Your task to perform on an android device: empty trash in the gmail app Image 0: 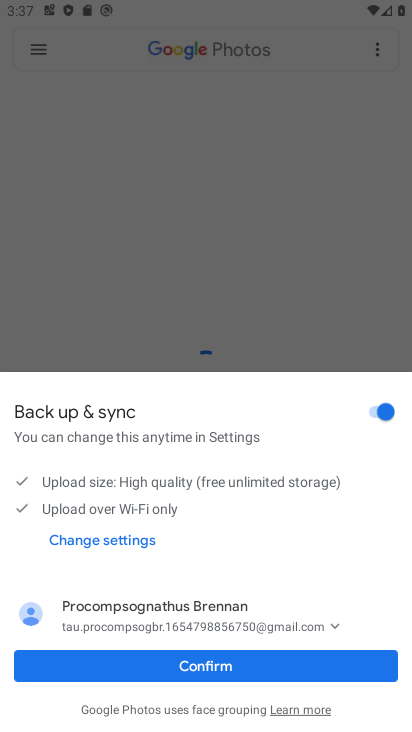
Step 0: press home button
Your task to perform on an android device: empty trash in the gmail app Image 1: 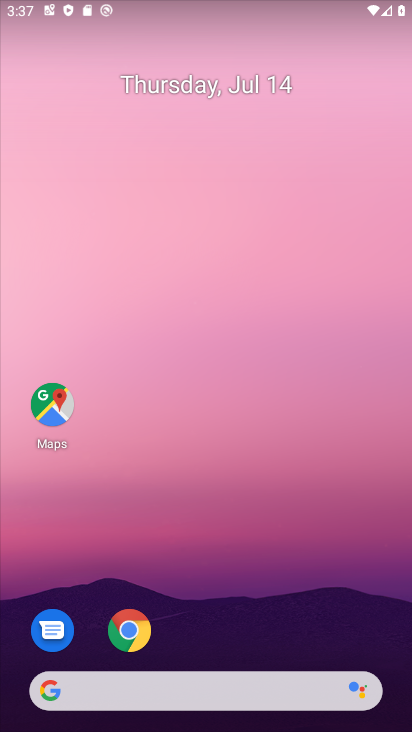
Step 1: drag from (201, 718) to (199, 206)
Your task to perform on an android device: empty trash in the gmail app Image 2: 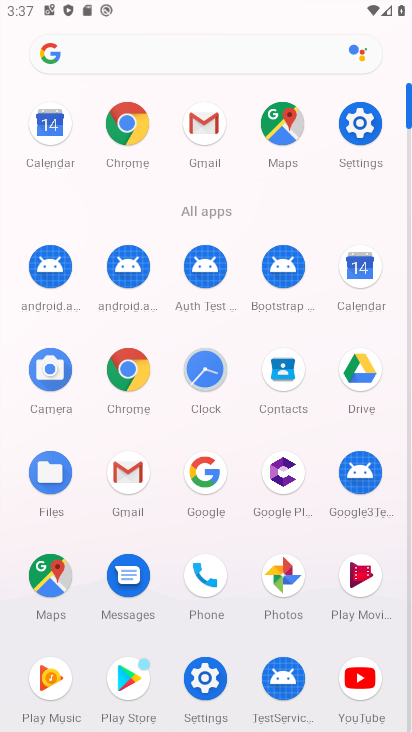
Step 2: click (119, 471)
Your task to perform on an android device: empty trash in the gmail app Image 3: 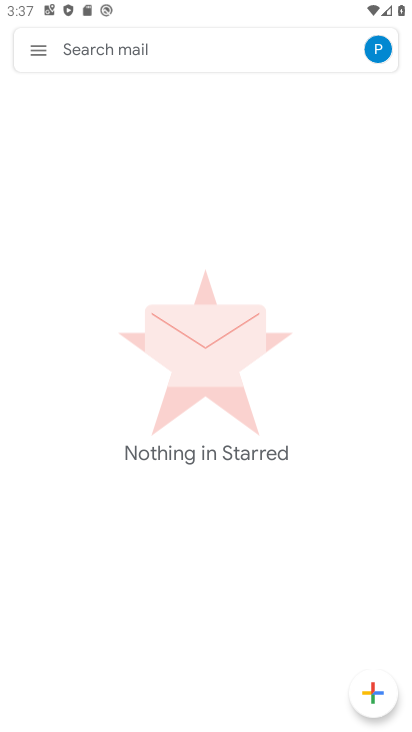
Step 3: click (33, 47)
Your task to perform on an android device: empty trash in the gmail app Image 4: 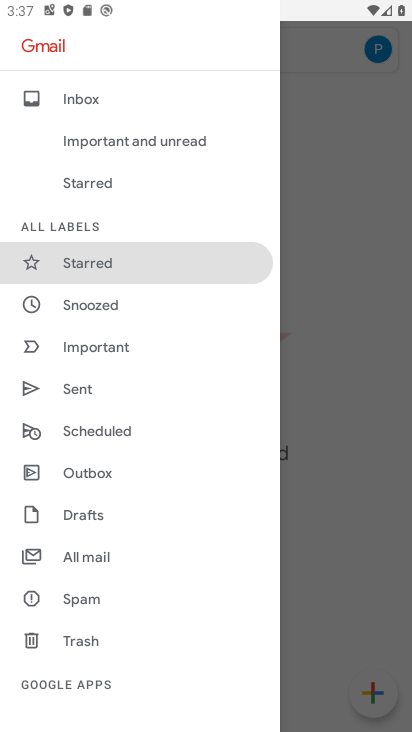
Step 4: click (83, 637)
Your task to perform on an android device: empty trash in the gmail app Image 5: 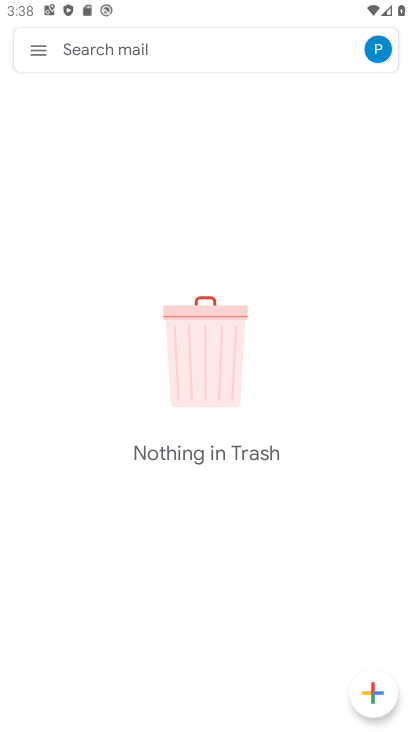
Step 5: task complete